Your task to perform on an android device: Open privacy settings Image 0: 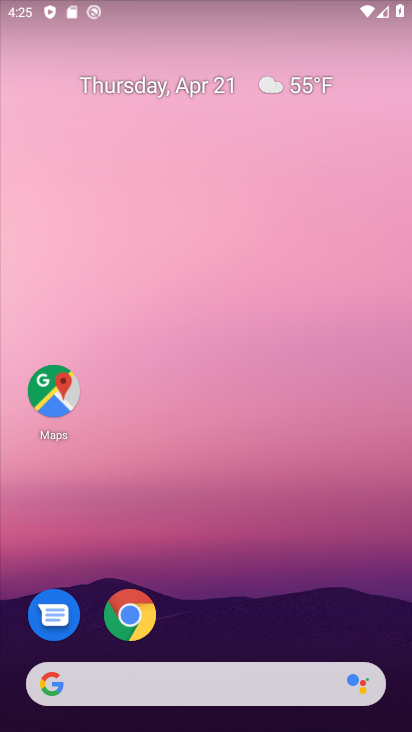
Step 0: click (141, 611)
Your task to perform on an android device: Open privacy settings Image 1: 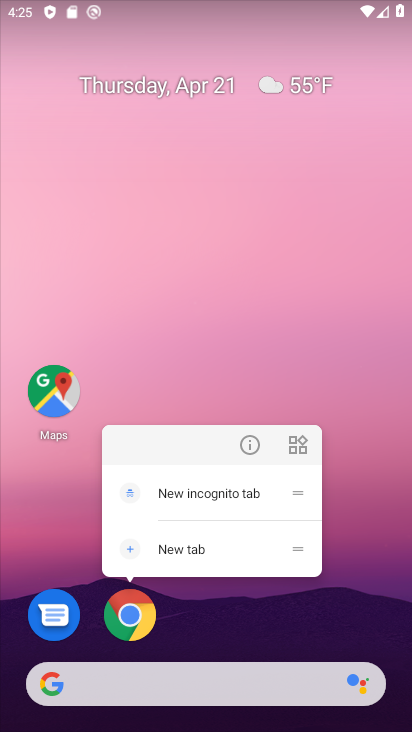
Step 1: click (146, 605)
Your task to perform on an android device: Open privacy settings Image 2: 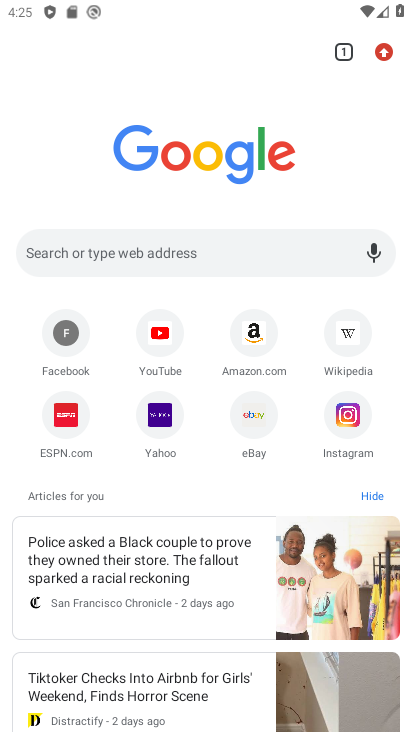
Step 2: drag from (378, 55) to (213, 474)
Your task to perform on an android device: Open privacy settings Image 3: 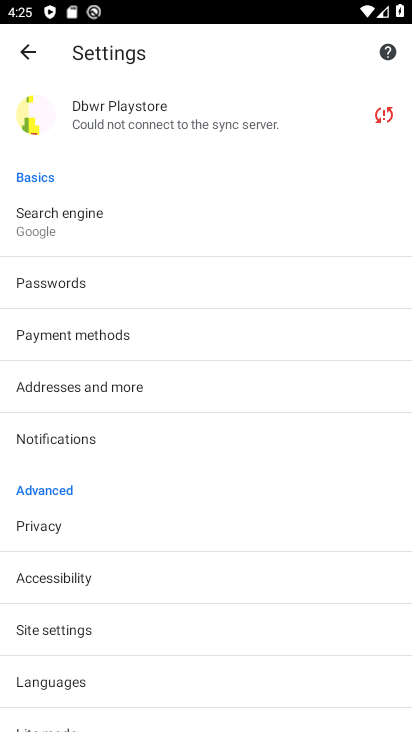
Step 3: click (96, 533)
Your task to perform on an android device: Open privacy settings Image 4: 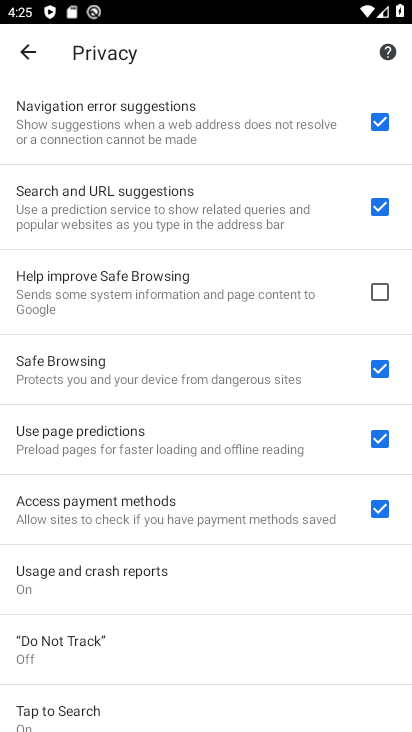
Step 4: task complete